Your task to perform on an android device: open app "Upside-Cash back on gas & food" Image 0: 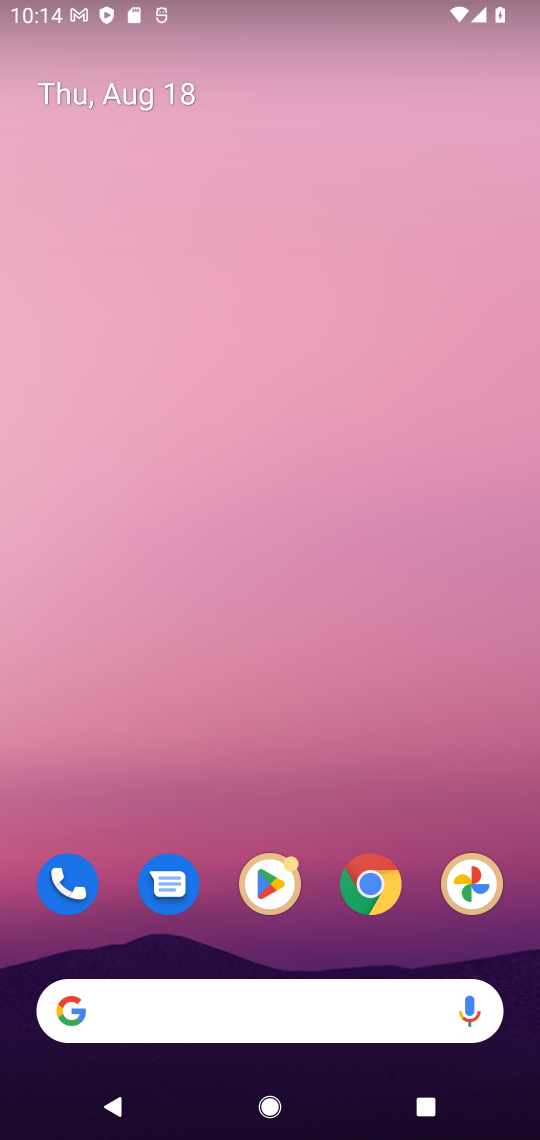
Step 0: drag from (233, 1024) to (259, 121)
Your task to perform on an android device: open app "Upside-Cash back on gas & food" Image 1: 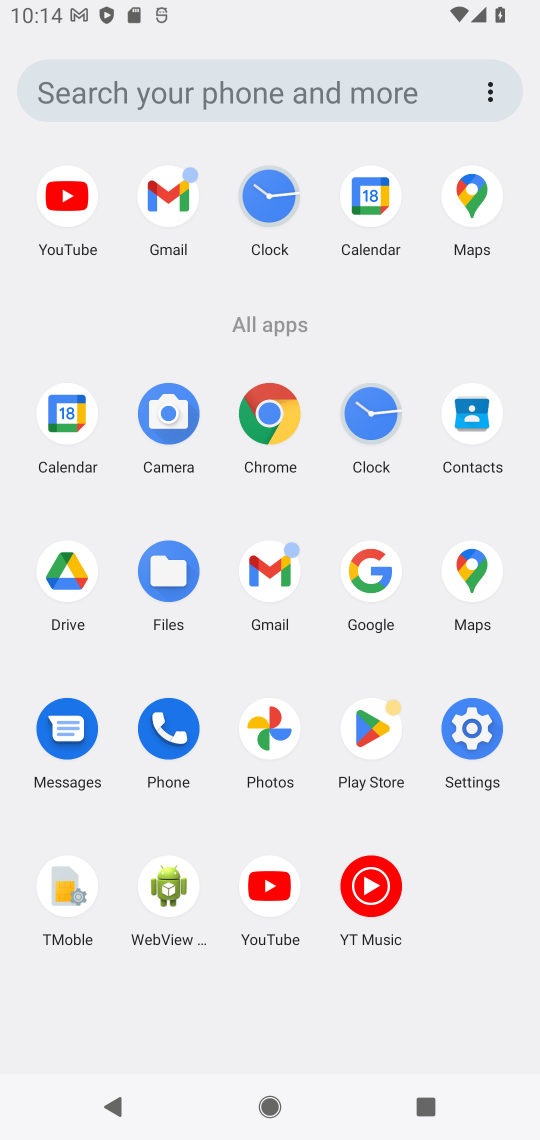
Step 1: click (377, 730)
Your task to perform on an android device: open app "Upside-Cash back on gas & food" Image 2: 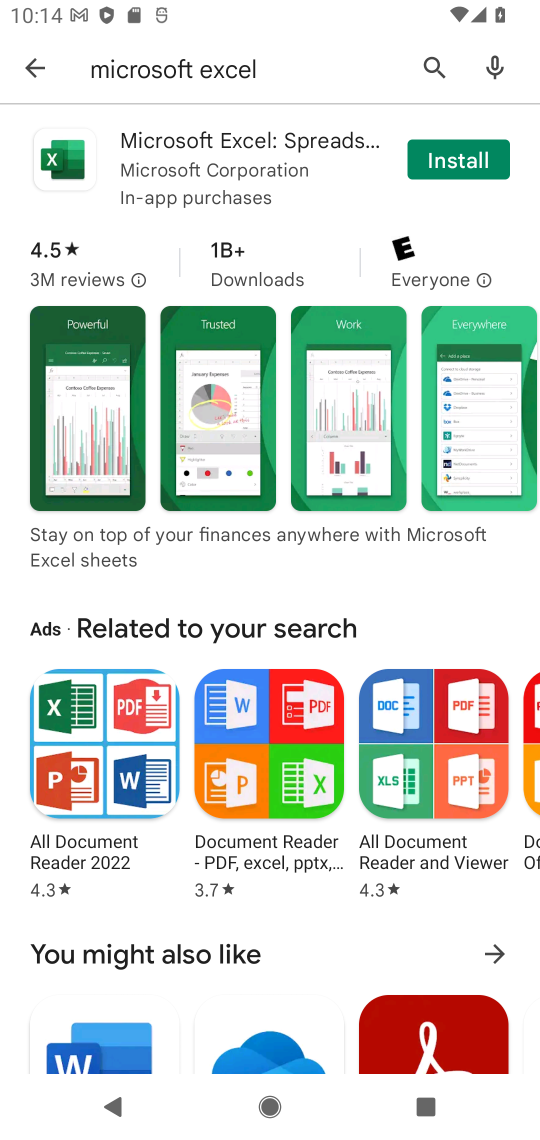
Step 2: press back button
Your task to perform on an android device: open app "Upside-Cash back on gas & food" Image 3: 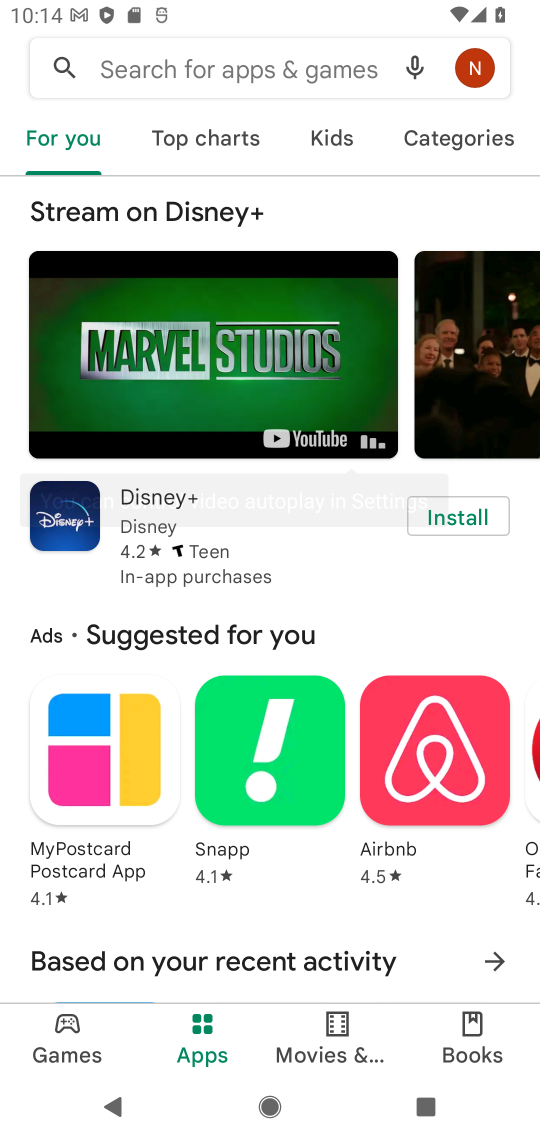
Step 3: click (227, 63)
Your task to perform on an android device: open app "Upside-Cash back on gas & food" Image 4: 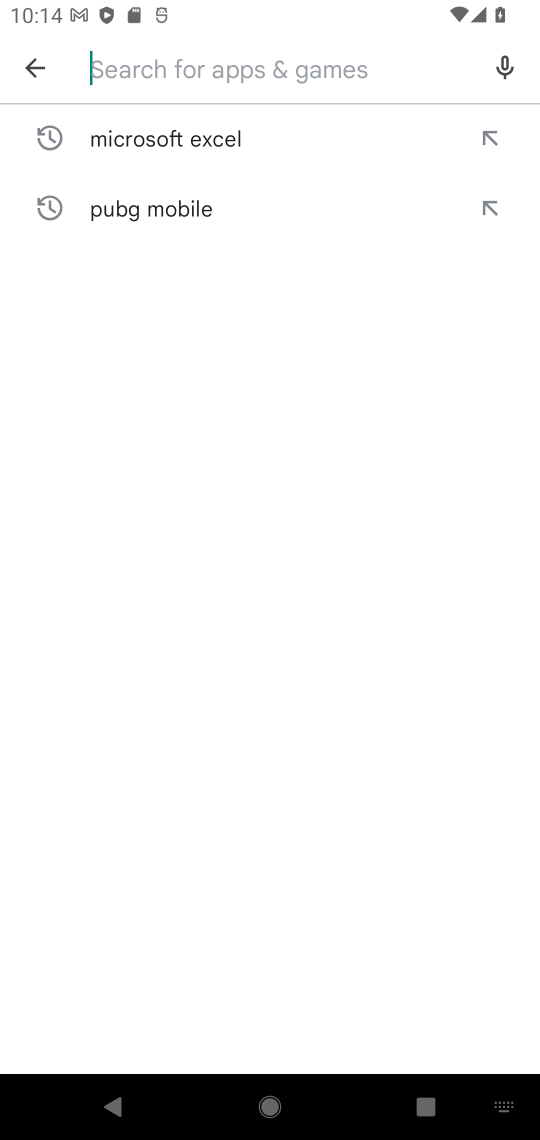
Step 4: type "Upside-Cash back on gas & food"
Your task to perform on an android device: open app "Upside-Cash back on gas & food" Image 5: 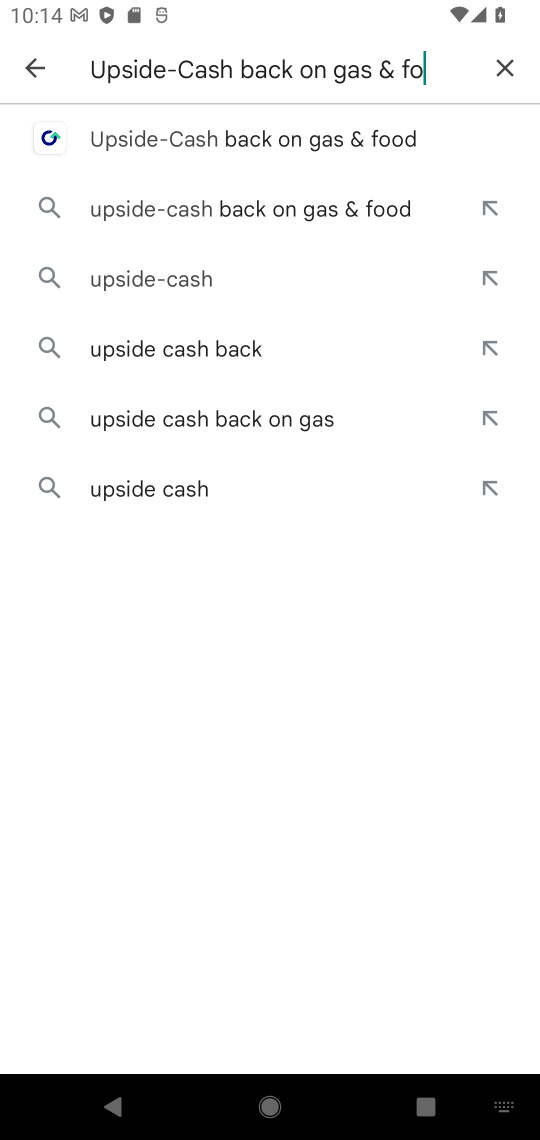
Step 5: type ""
Your task to perform on an android device: open app "Upside-Cash back on gas & food" Image 6: 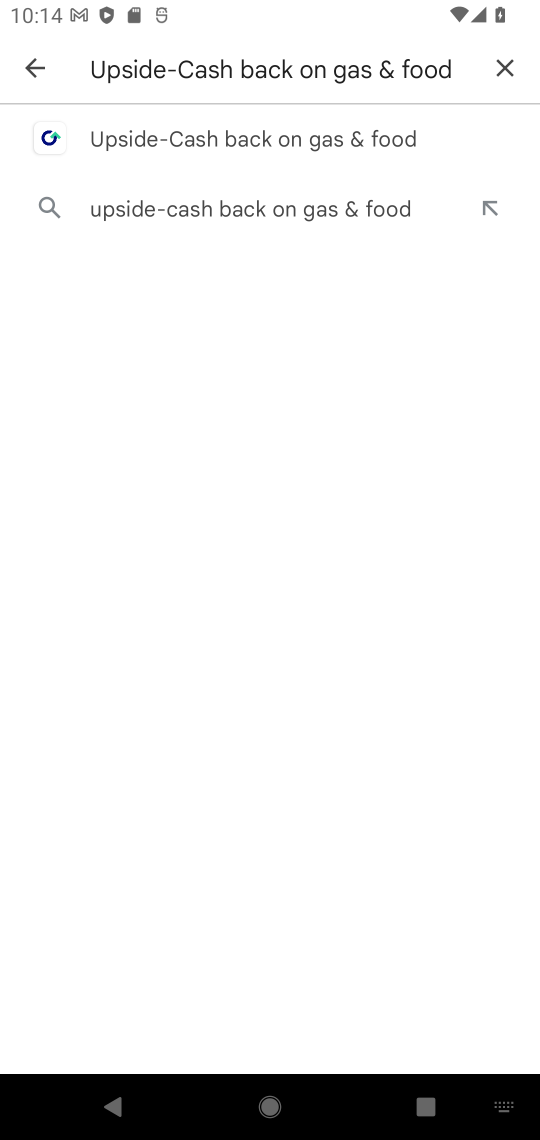
Step 6: click (244, 152)
Your task to perform on an android device: open app "Upside-Cash back on gas & food" Image 7: 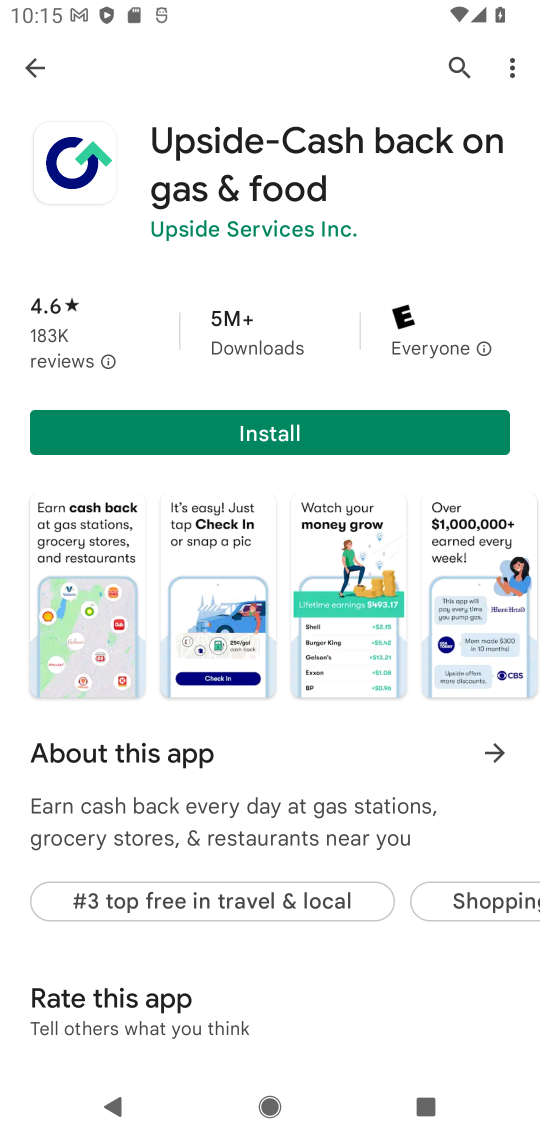
Step 7: task complete